Your task to perform on an android device: turn pop-ups on in chrome Image 0: 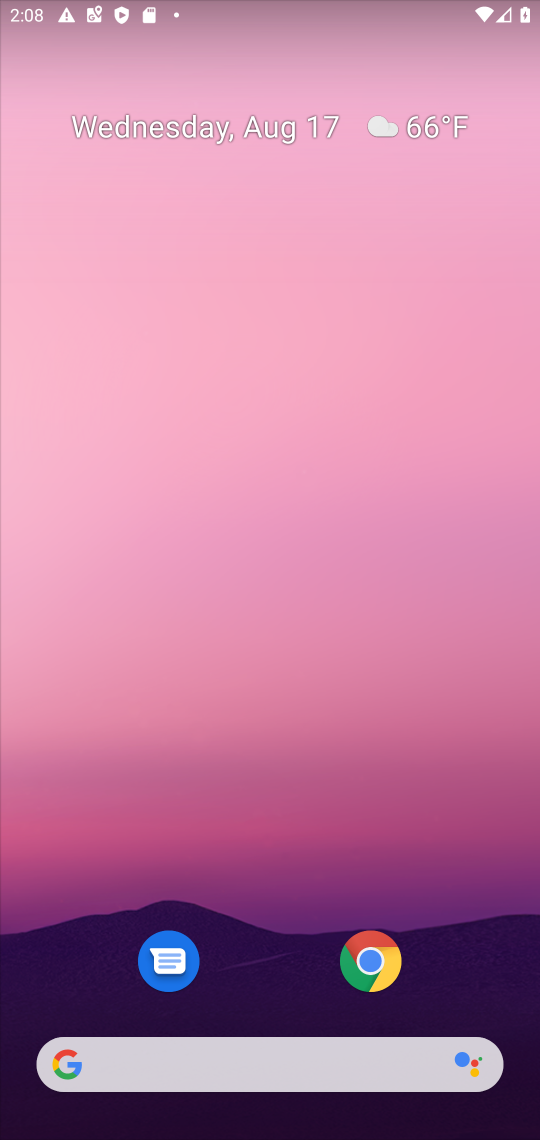
Step 0: drag from (298, 1011) to (534, 15)
Your task to perform on an android device: turn pop-ups on in chrome Image 1: 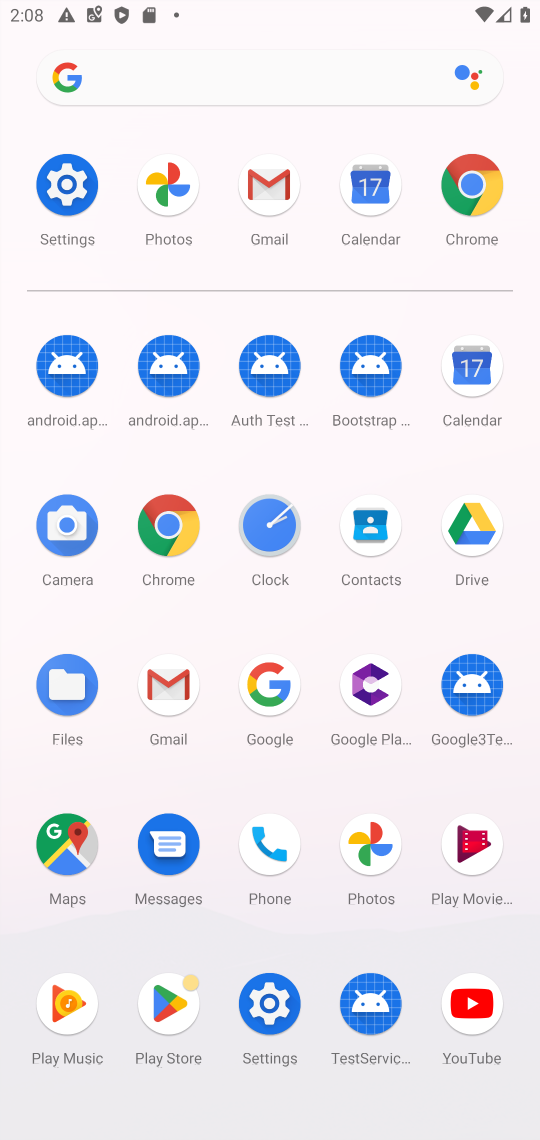
Step 1: click (166, 538)
Your task to perform on an android device: turn pop-ups on in chrome Image 2: 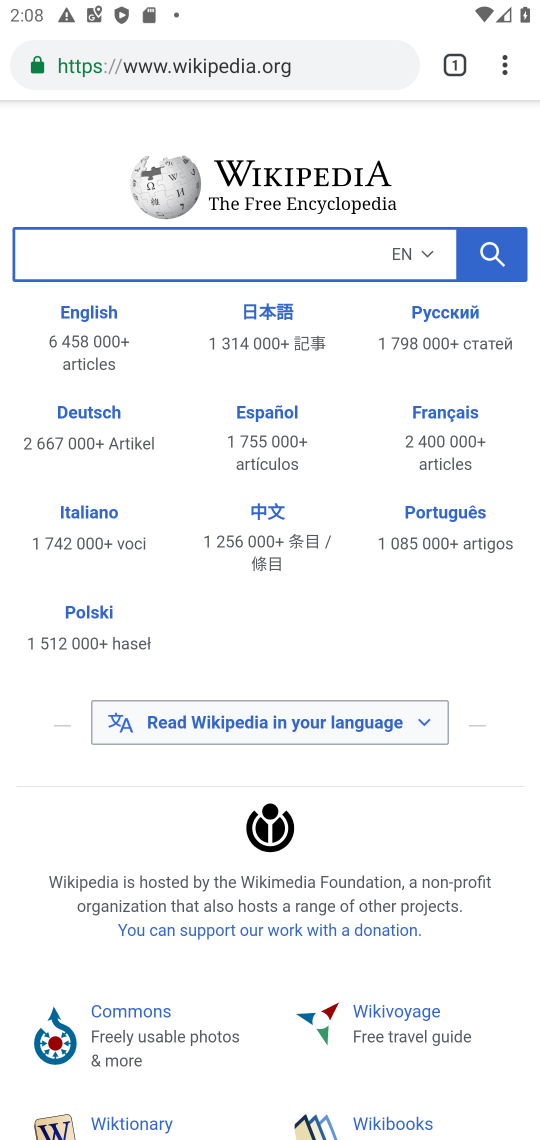
Step 2: click (512, 77)
Your task to perform on an android device: turn pop-ups on in chrome Image 3: 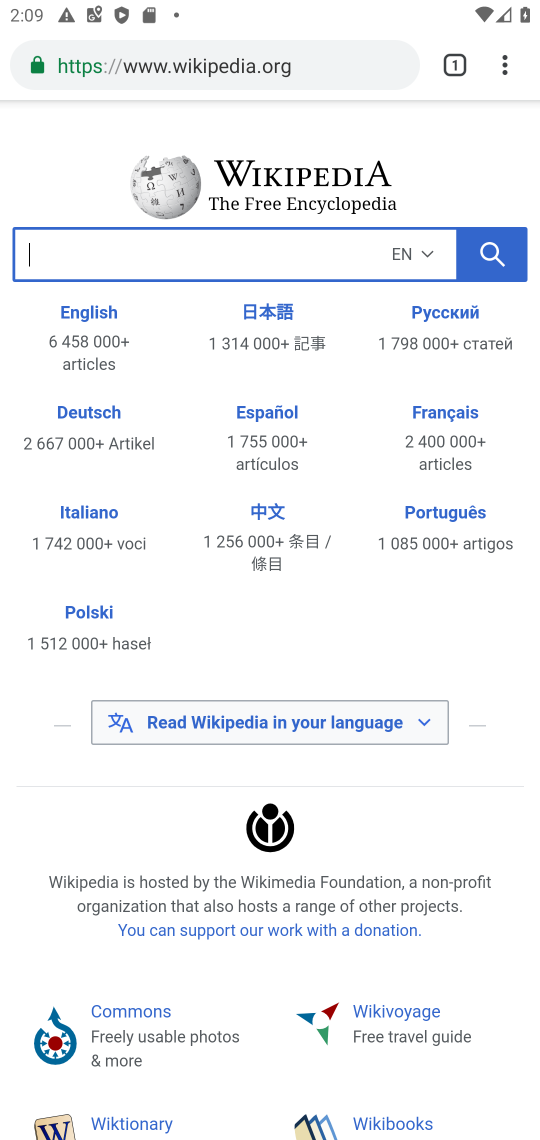
Step 3: click (509, 68)
Your task to perform on an android device: turn pop-ups on in chrome Image 4: 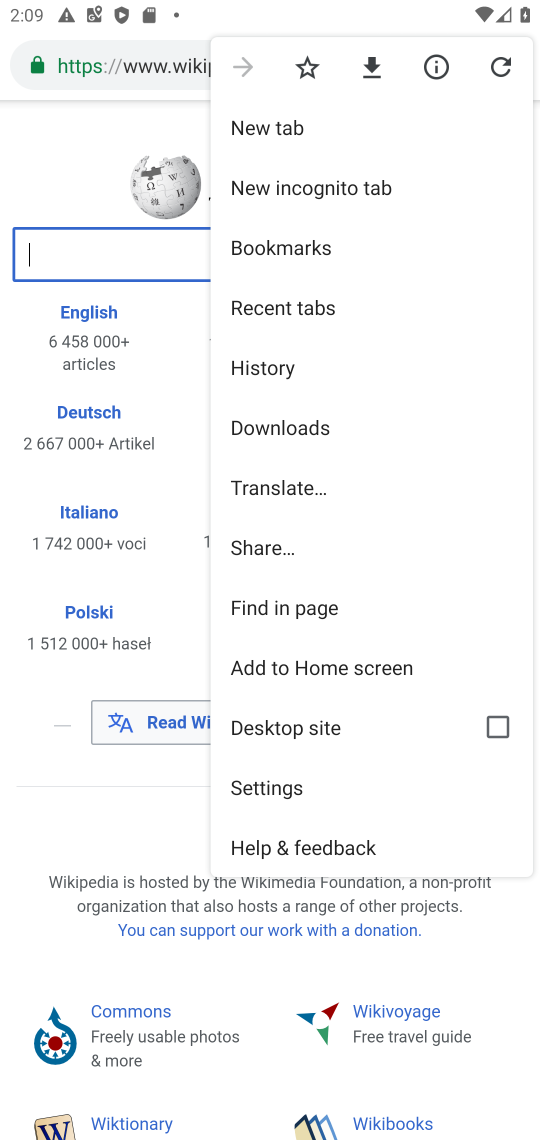
Step 4: click (264, 793)
Your task to perform on an android device: turn pop-ups on in chrome Image 5: 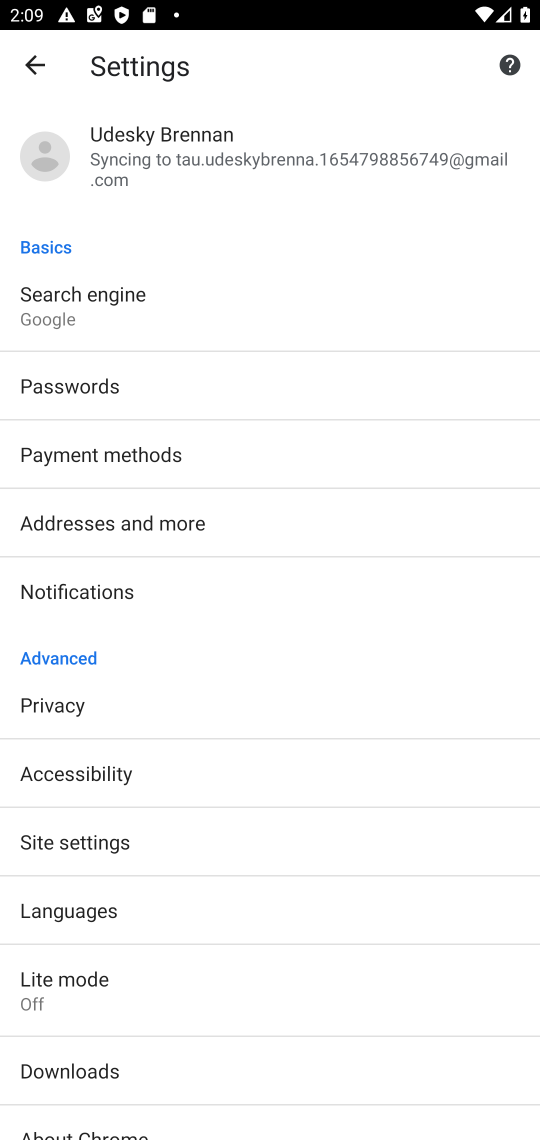
Step 5: click (103, 849)
Your task to perform on an android device: turn pop-ups on in chrome Image 6: 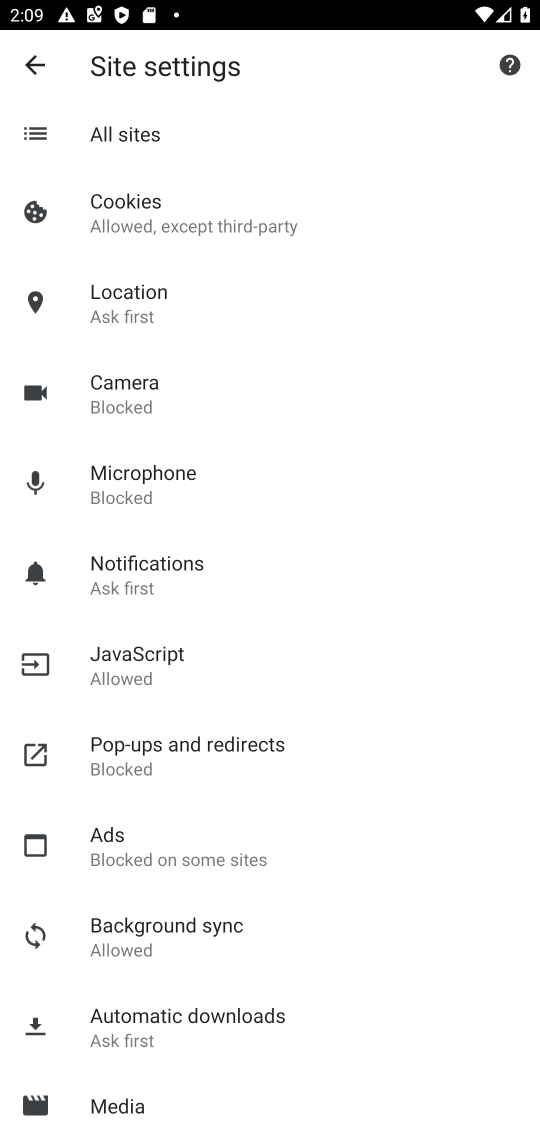
Step 6: click (196, 765)
Your task to perform on an android device: turn pop-ups on in chrome Image 7: 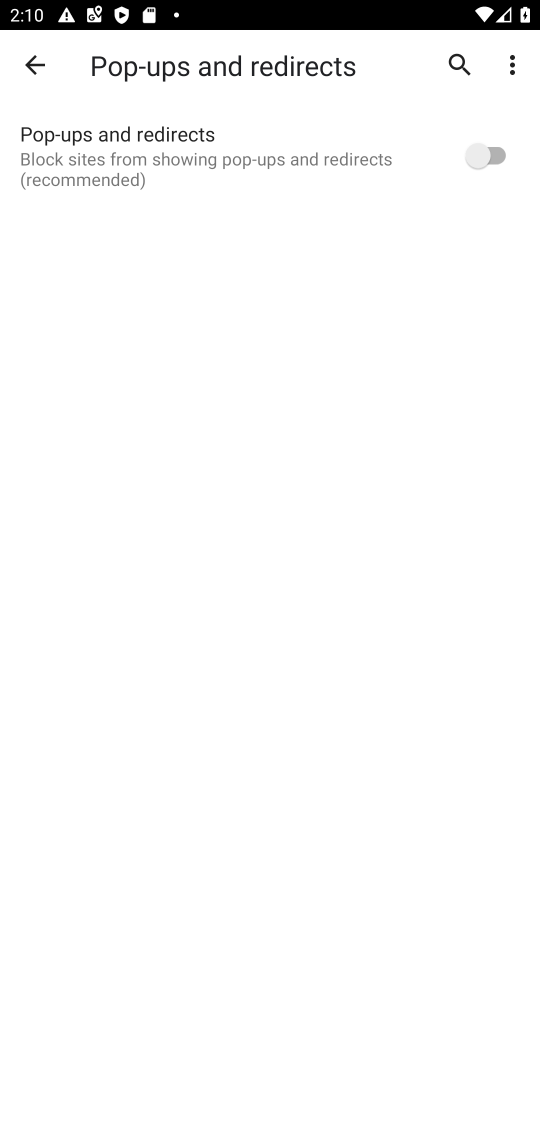
Step 7: click (468, 151)
Your task to perform on an android device: turn pop-ups on in chrome Image 8: 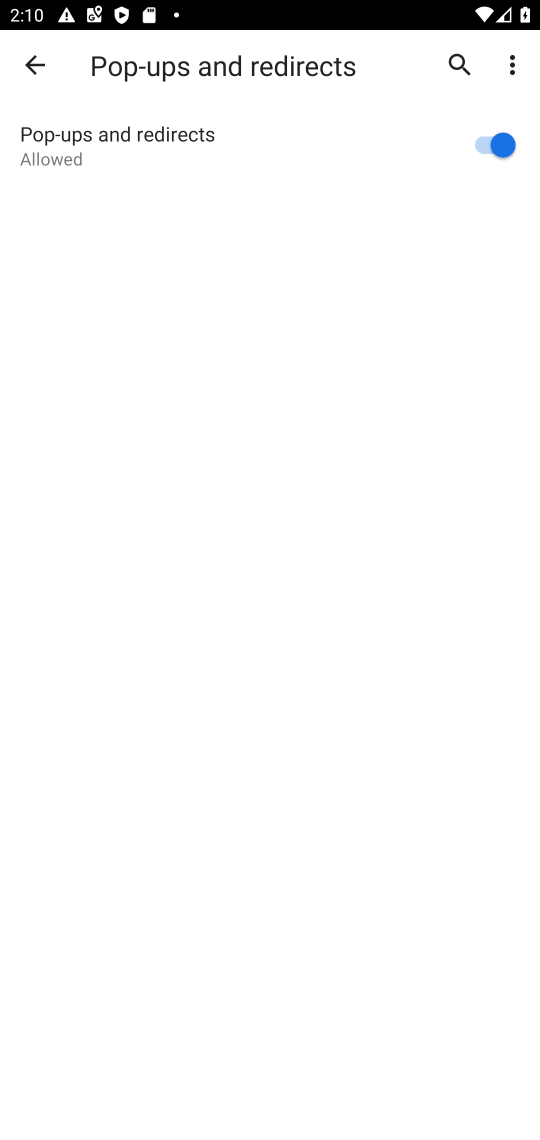
Step 8: task complete